Your task to perform on an android device: Open eBay Image 0: 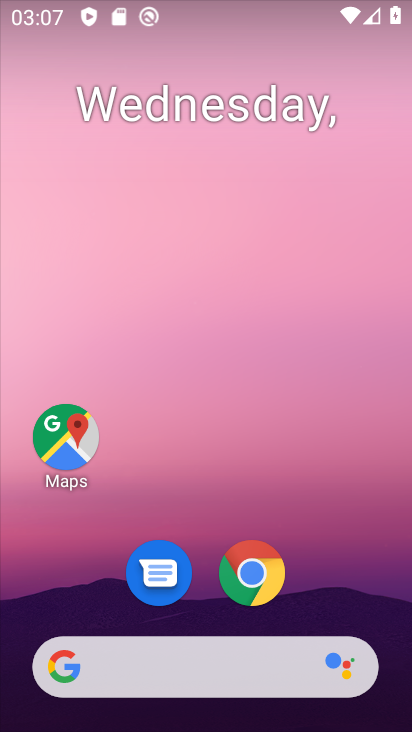
Step 0: click (256, 573)
Your task to perform on an android device: Open eBay Image 1: 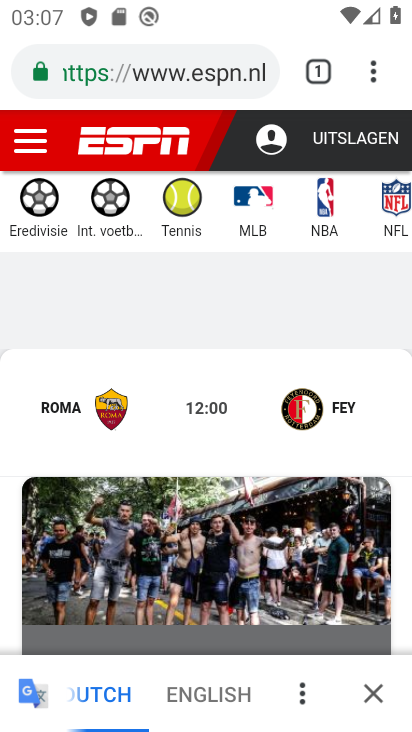
Step 1: click (372, 79)
Your task to perform on an android device: Open eBay Image 2: 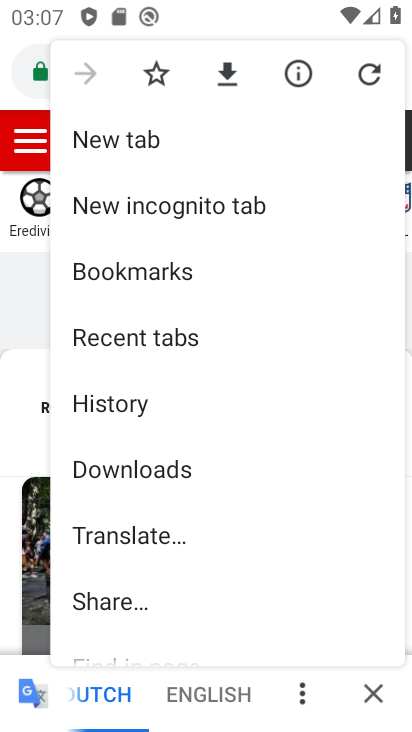
Step 2: click (131, 137)
Your task to perform on an android device: Open eBay Image 3: 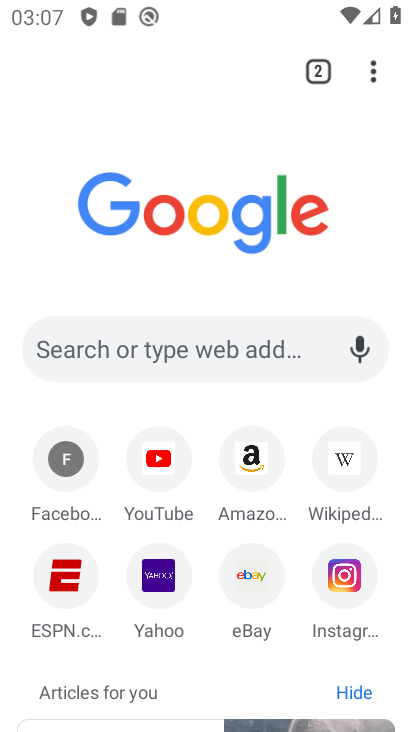
Step 3: click (262, 585)
Your task to perform on an android device: Open eBay Image 4: 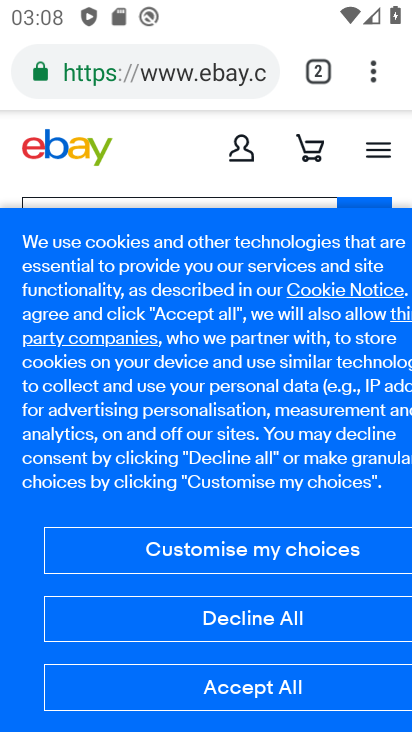
Step 4: task complete